Your task to perform on an android device: clear history in the chrome app Image 0: 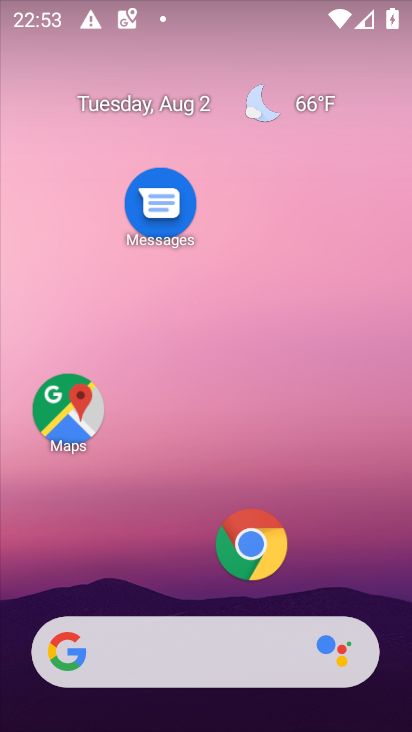
Step 0: click (270, 530)
Your task to perform on an android device: clear history in the chrome app Image 1: 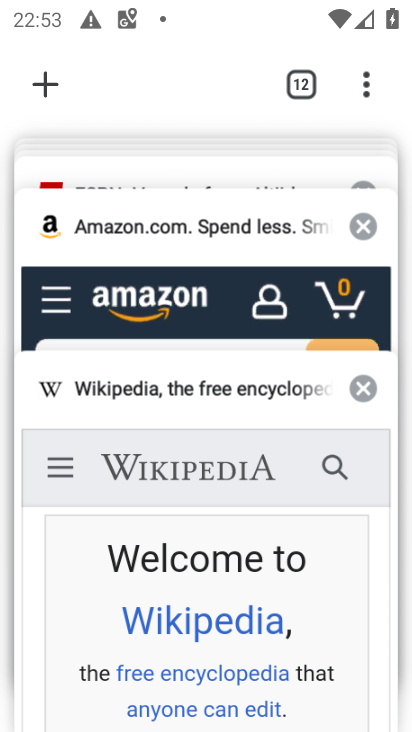
Step 1: click (354, 90)
Your task to perform on an android device: clear history in the chrome app Image 2: 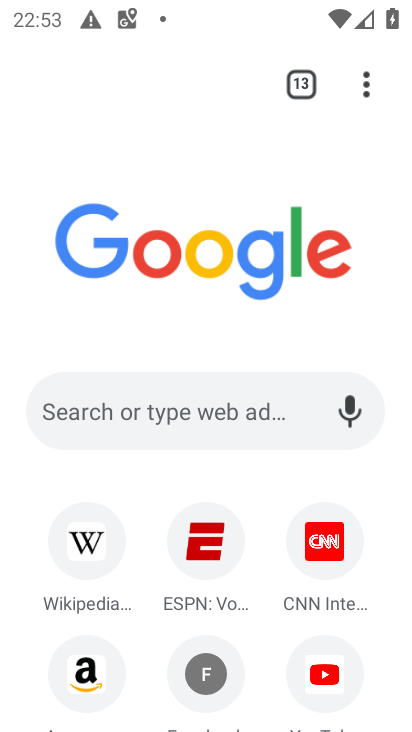
Step 2: click (365, 87)
Your task to perform on an android device: clear history in the chrome app Image 3: 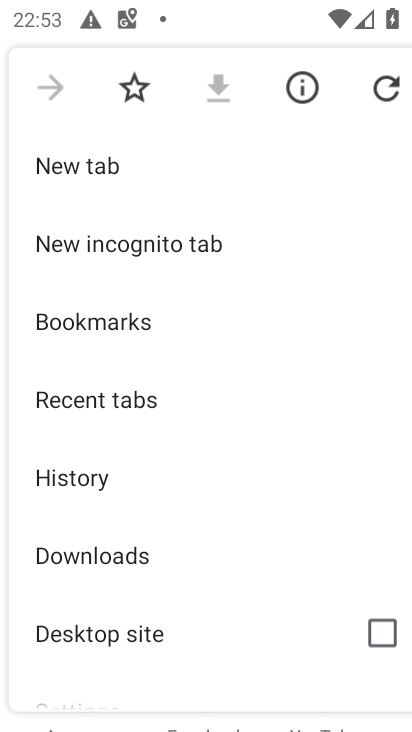
Step 3: click (91, 487)
Your task to perform on an android device: clear history in the chrome app Image 4: 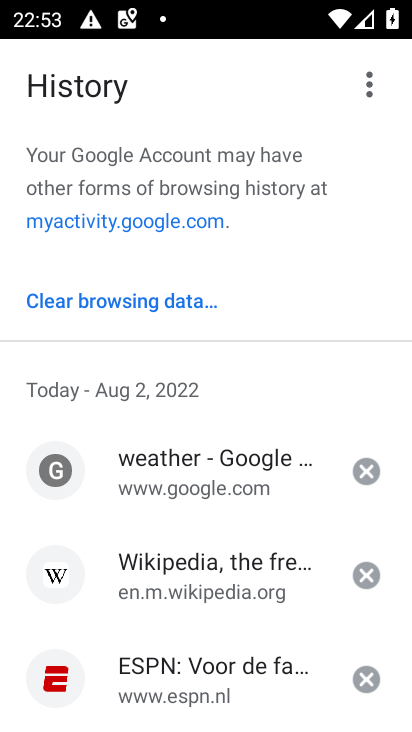
Step 4: click (146, 291)
Your task to perform on an android device: clear history in the chrome app Image 5: 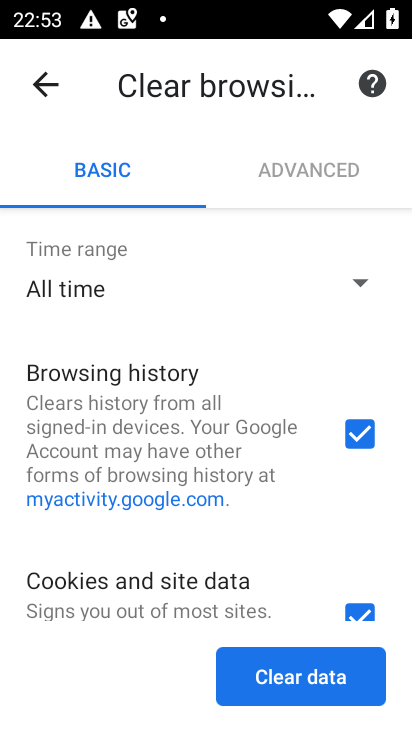
Step 5: drag from (272, 620) to (284, 321)
Your task to perform on an android device: clear history in the chrome app Image 6: 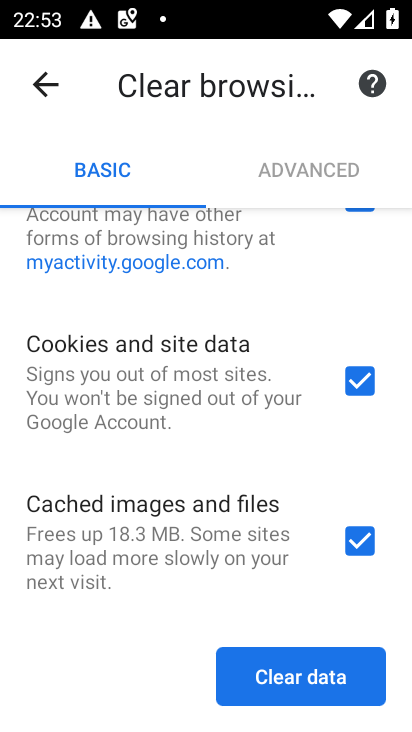
Step 6: click (304, 684)
Your task to perform on an android device: clear history in the chrome app Image 7: 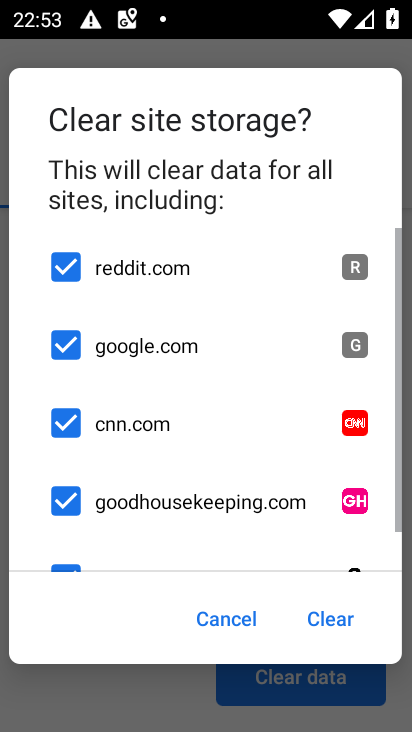
Step 7: click (325, 618)
Your task to perform on an android device: clear history in the chrome app Image 8: 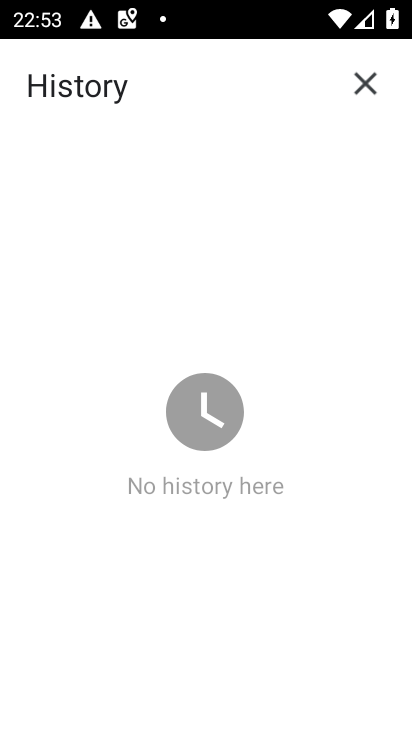
Step 8: task complete